Your task to perform on an android device: change the clock display to digital Image 0: 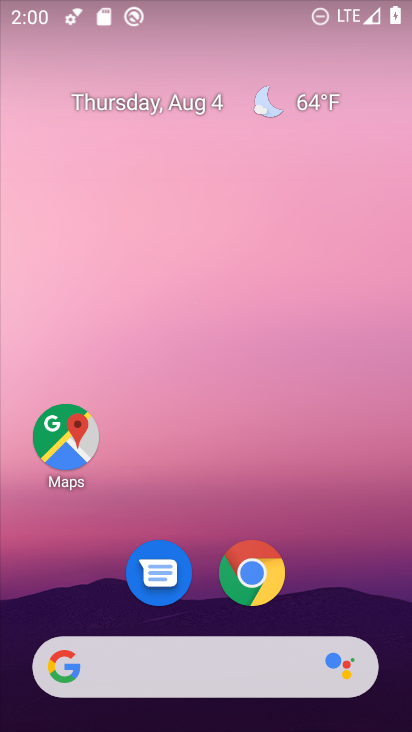
Step 0: drag from (341, 522) to (324, 113)
Your task to perform on an android device: change the clock display to digital Image 1: 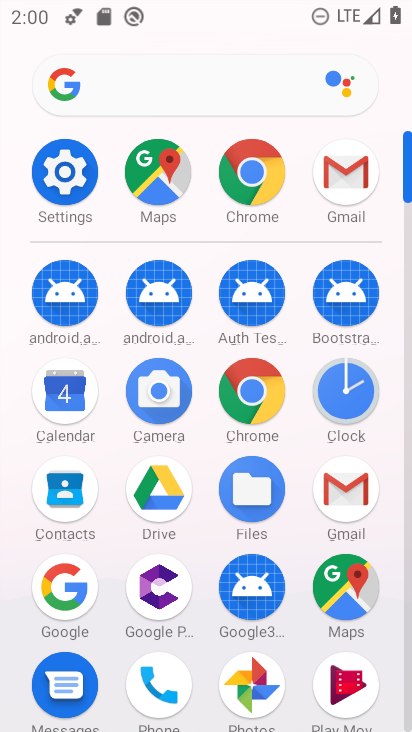
Step 1: click (336, 395)
Your task to perform on an android device: change the clock display to digital Image 2: 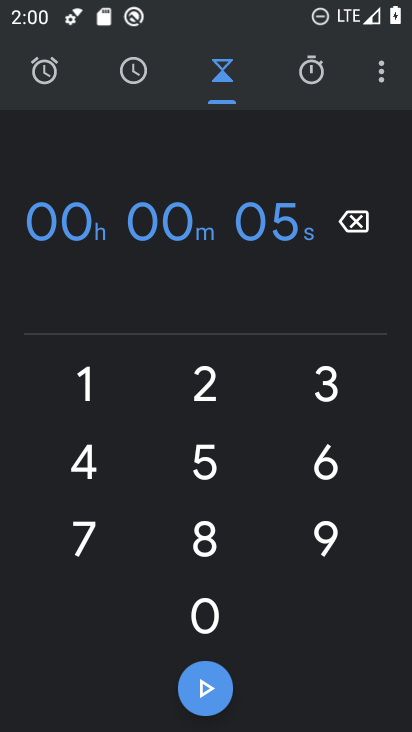
Step 2: click (387, 64)
Your task to perform on an android device: change the clock display to digital Image 3: 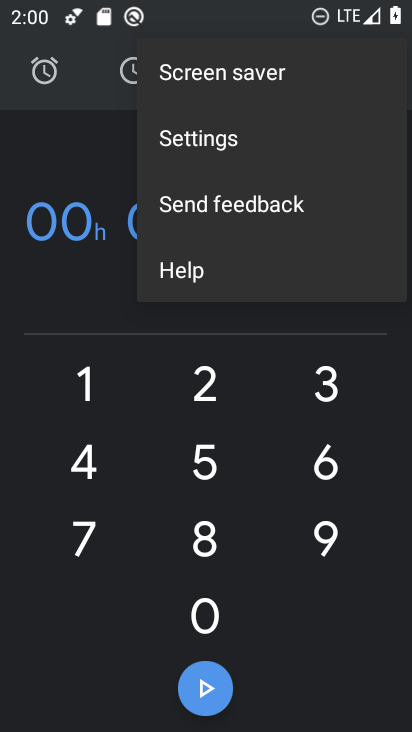
Step 3: click (249, 139)
Your task to perform on an android device: change the clock display to digital Image 4: 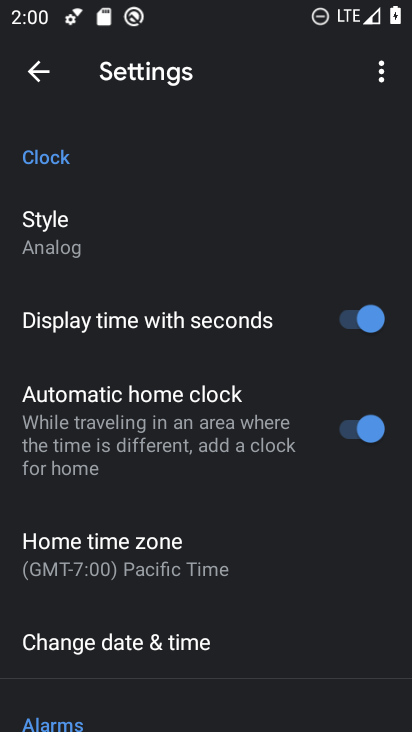
Step 4: click (79, 228)
Your task to perform on an android device: change the clock display to digital Image 5: 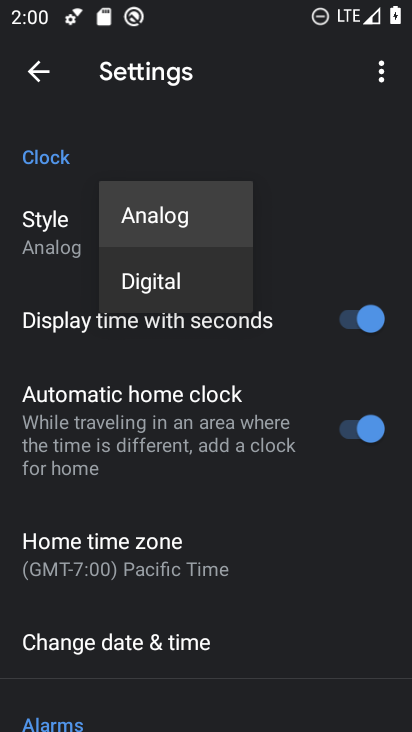
Step 5: click (140, 282)
Your task to perform on an android device: change the clock display to digital Image 6: 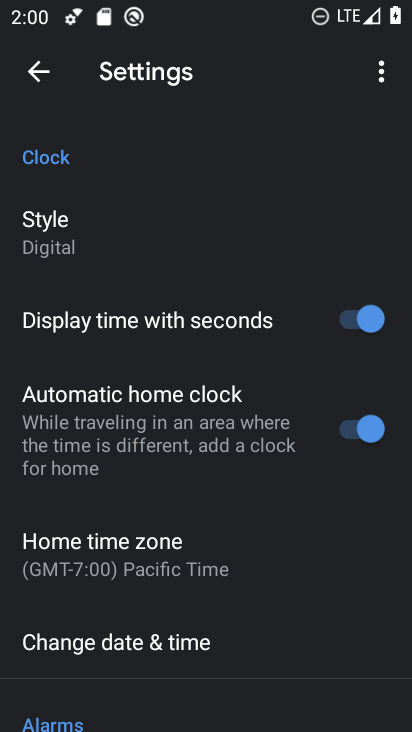
Step 6: task complete